Your task to perform on an android device: Go to settings Image 0: 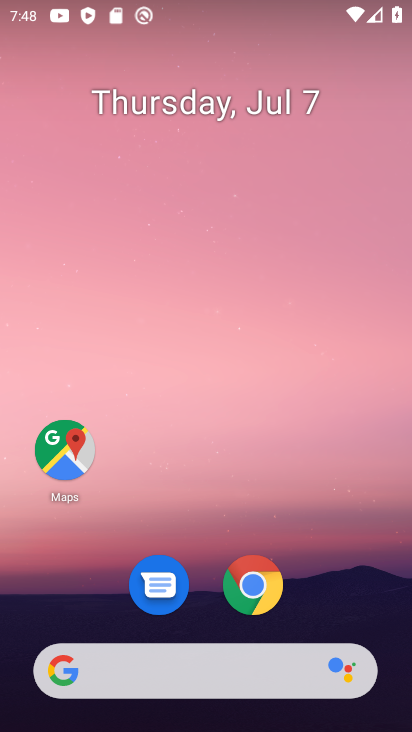
Step 0: drag from (318, 540) to (343, 49)
Your task to perform on an android device: Go to settings Image 1: 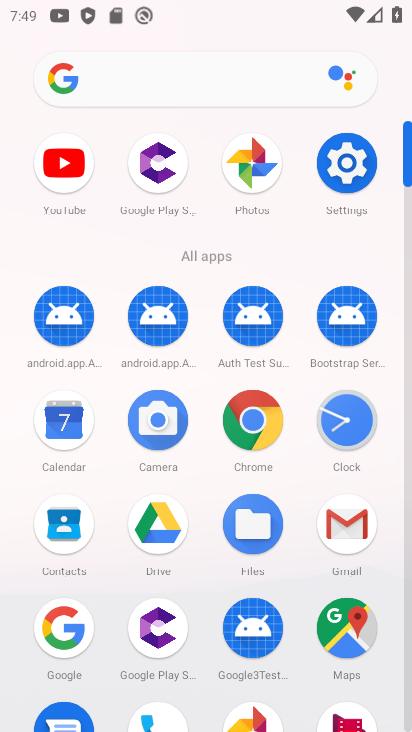
Step 1: click (353, 163)
Your task to perform on an android device: Go to settings Image 2: 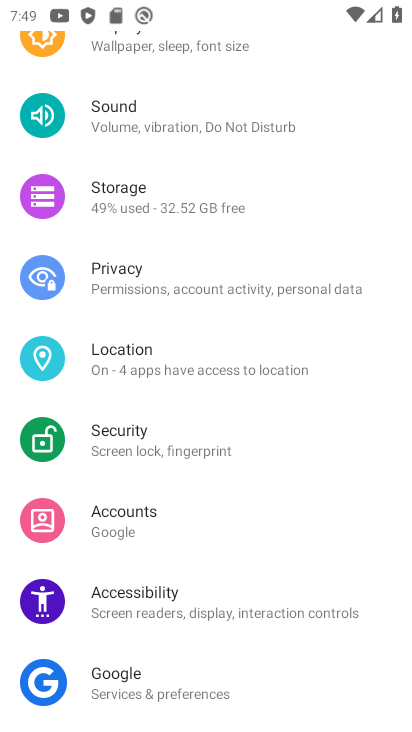
Step 2: task complete